Your task to perform on an android device: Show me recent news Image 0: 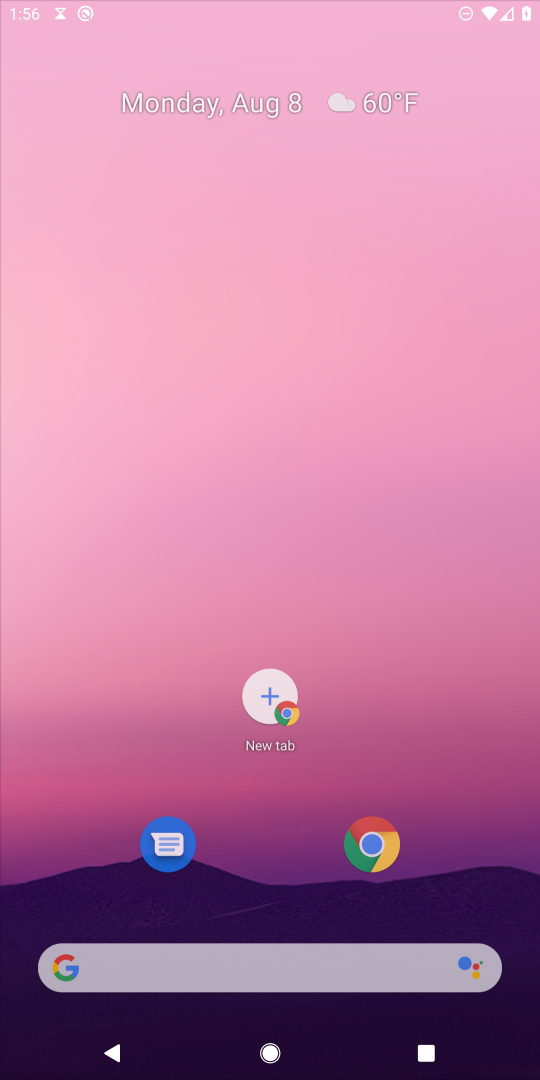
Step 0: press home button
Your task to perform on an android device: Show me recent news Image 1: 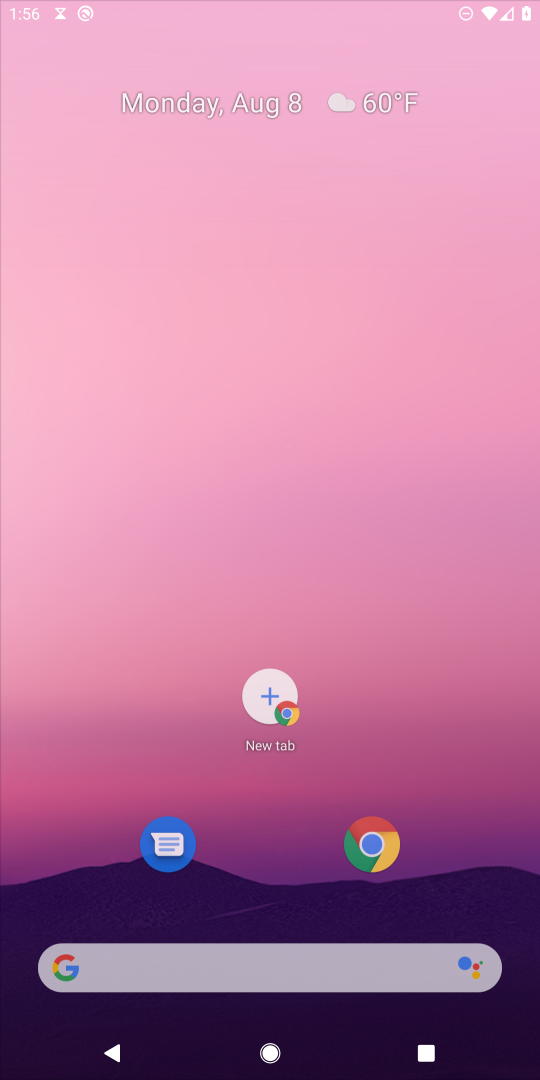
Step 1: click (436, 282)
Your task to perform on an android device: Show me recent news Image 2: 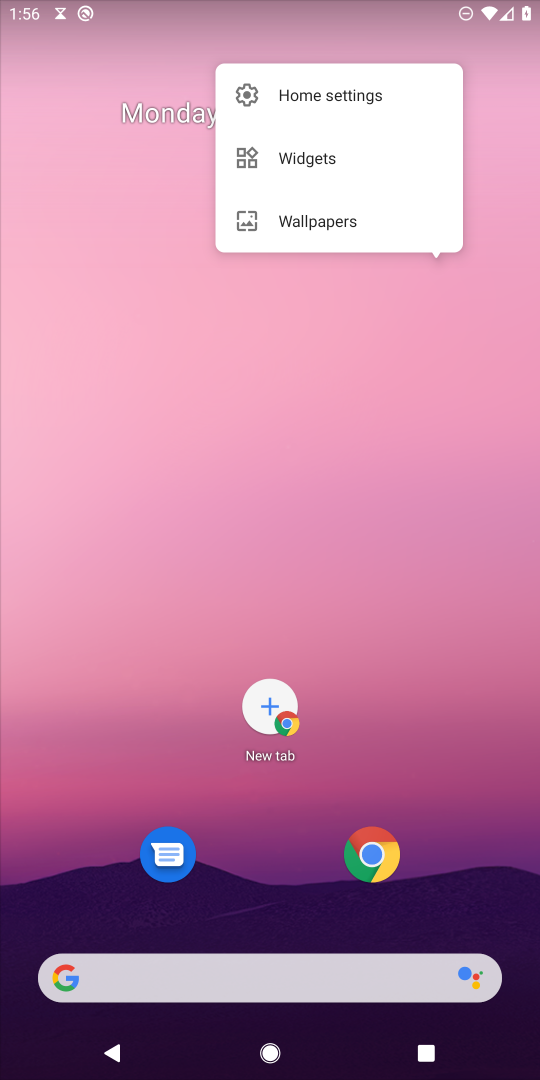
Step 2: press home button
Your task to perform on an android device: Show me recent news Image 3: 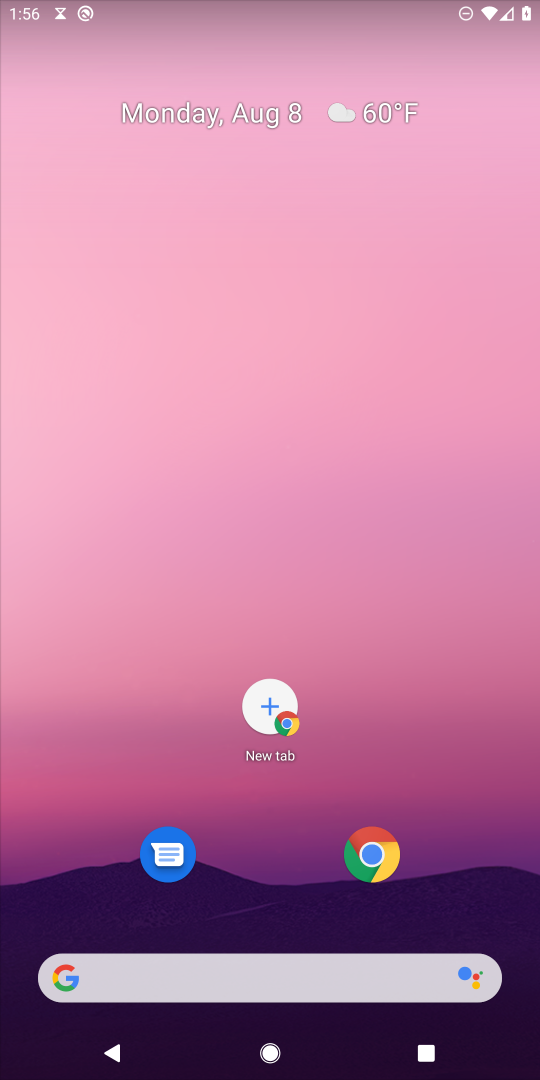
Step 3: click (66, 985)
Your task to perform on an android device: Show me recent news Image 4: 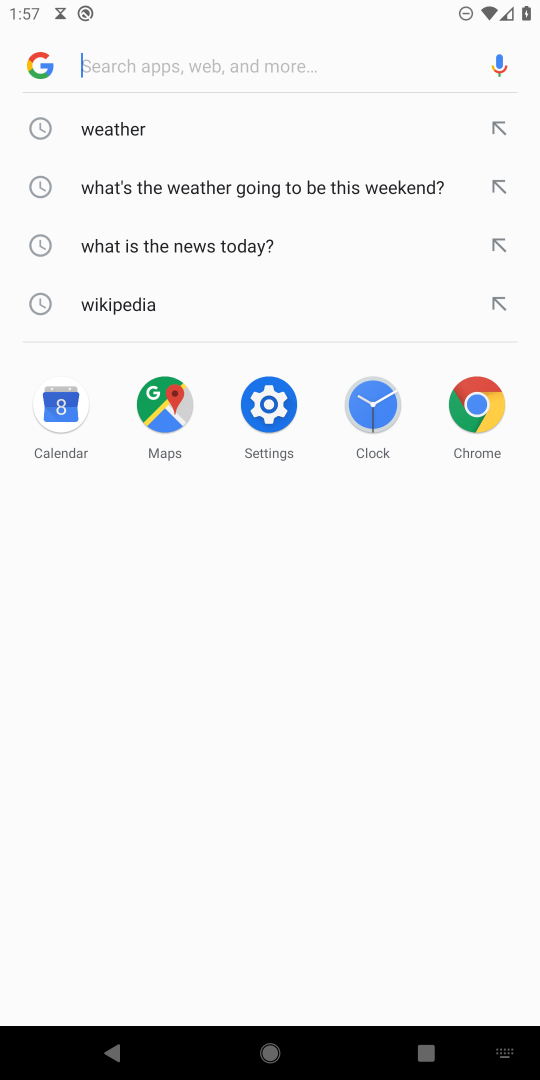
Step 4: type "recent news"
Your task to perform on an android device: Show me recent news Image 5: 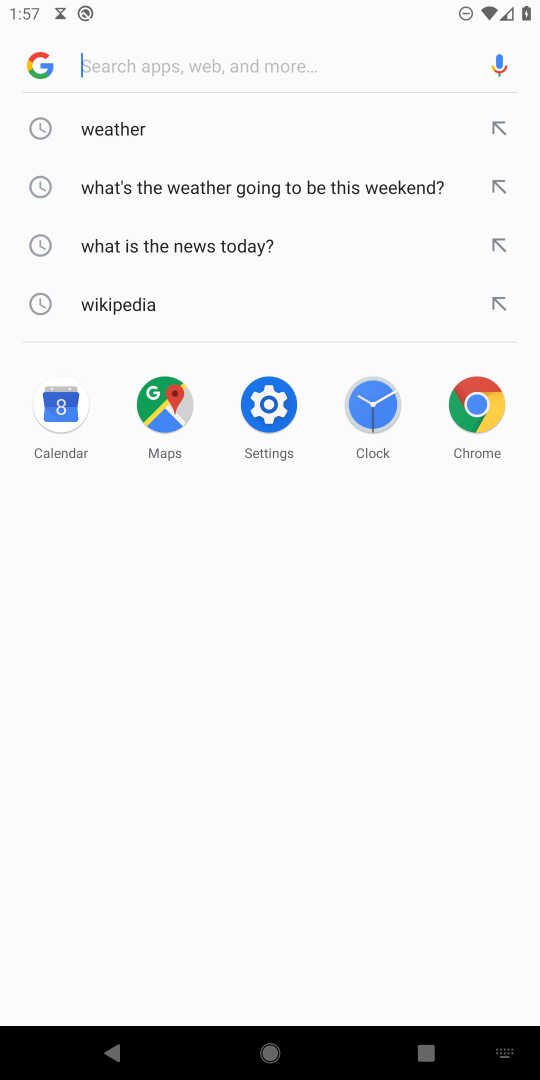
Step 5: click (115, 57)
Your task to perform on an android device: Show me recent news Image 6: 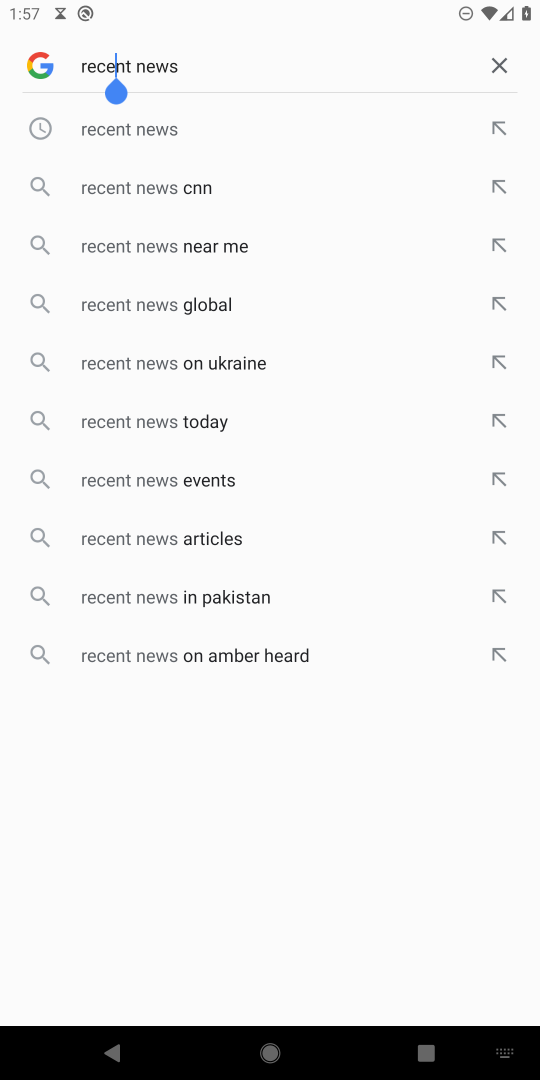
Step 6: click (138, 122)
Your task to perform on an android device: Show me recent news Image 7: 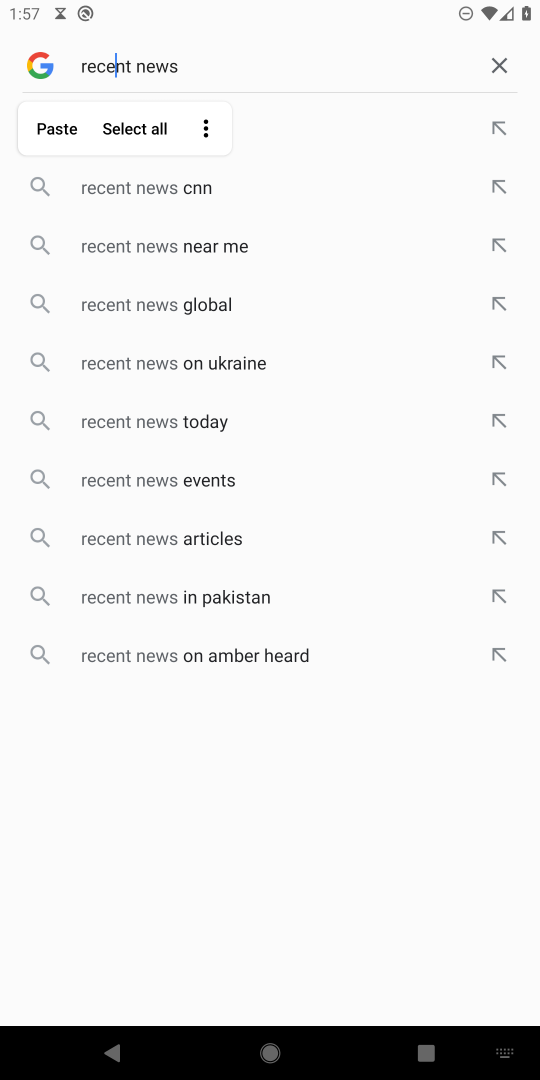
Step 7: press enter
Your task to perform on an android device: Show me recent news Image 8: 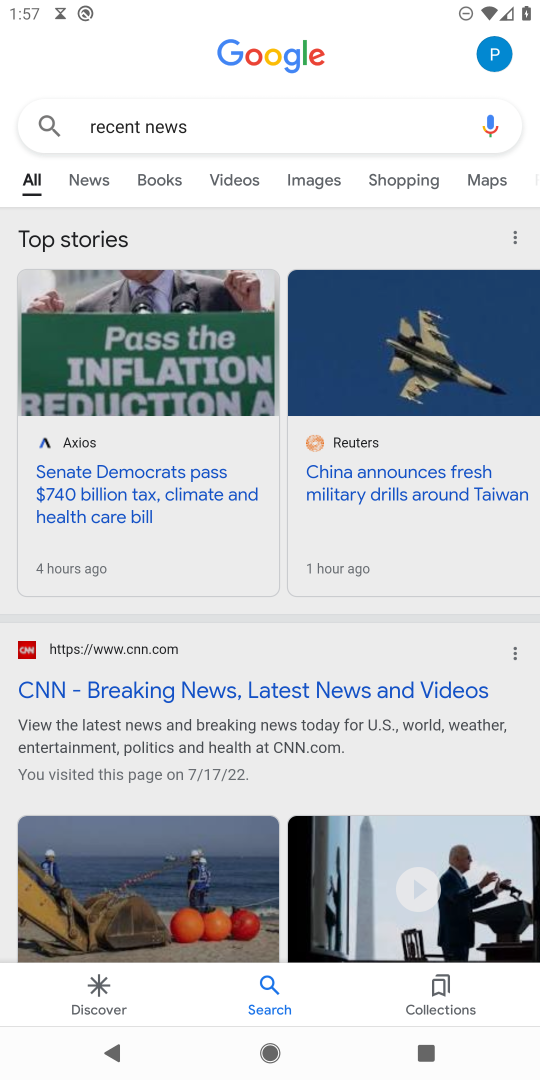
Step 8: task complete